Your task to perform on an android device: What's on my calendar today? Image 0: 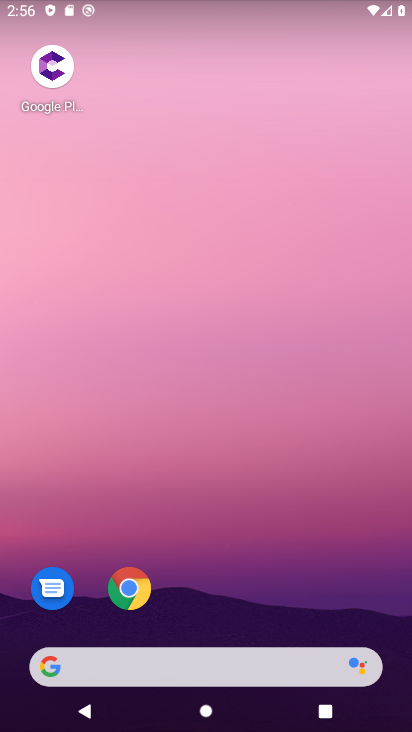
Step 0: drag from (209, 589) to (309, 174)
Your task to perform on an android device: What's on my calendar today? Image 1: 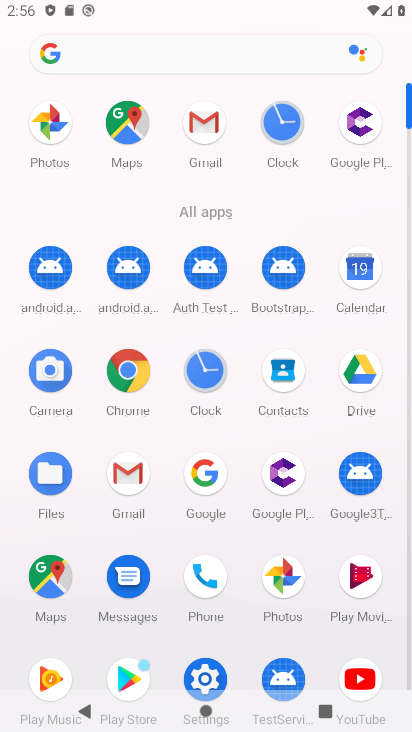
Step 1: click (359, 278)
Your task to perform on an android device: What's on my calendar today? Image 2: 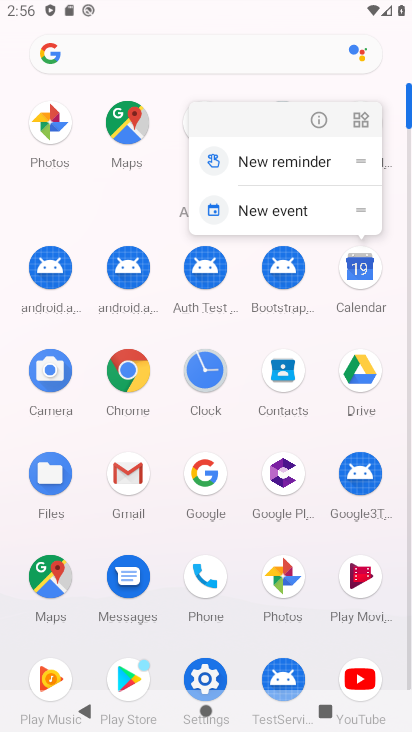
Step 2: click (353, 274)
Your task to perform on an android device: What's on my calendar today? Image 3: 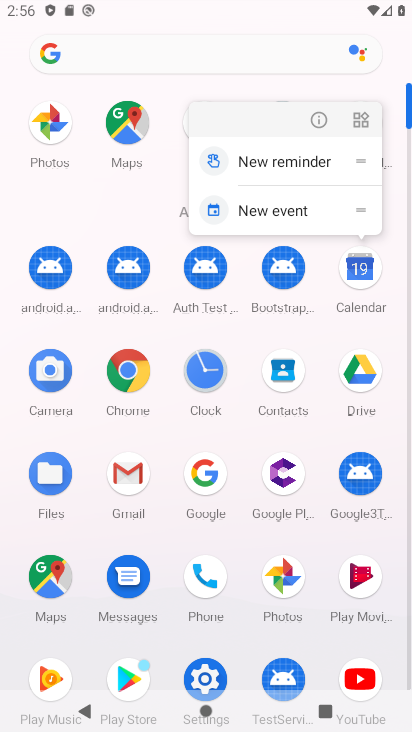
Step 3: click (364, 246)
Your task to perform on an android device: What's on my calendar today? Image 4: 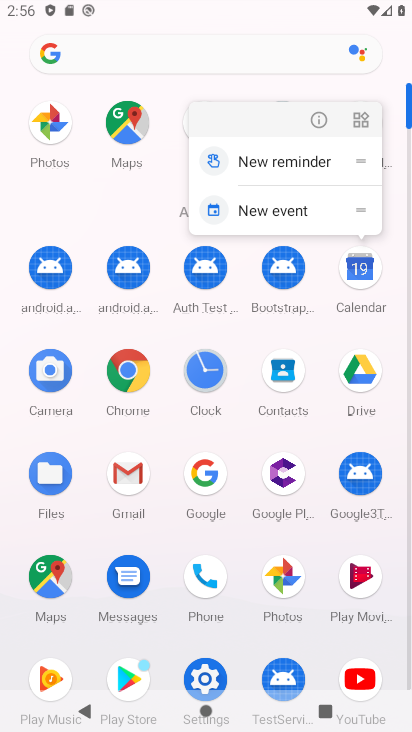
Step 4: click (366, 277)
Your task to perform on an android device: What's on my calendar today? Image 5: 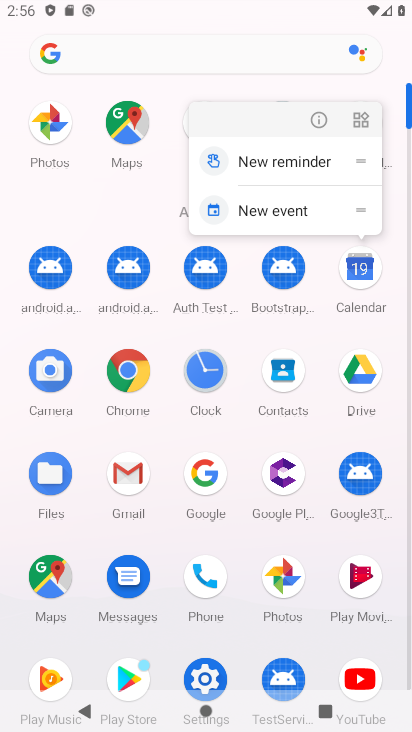
Step 5: click (363, 274)
Your task to perform on an android device: What's on my calendar today? Image 6: 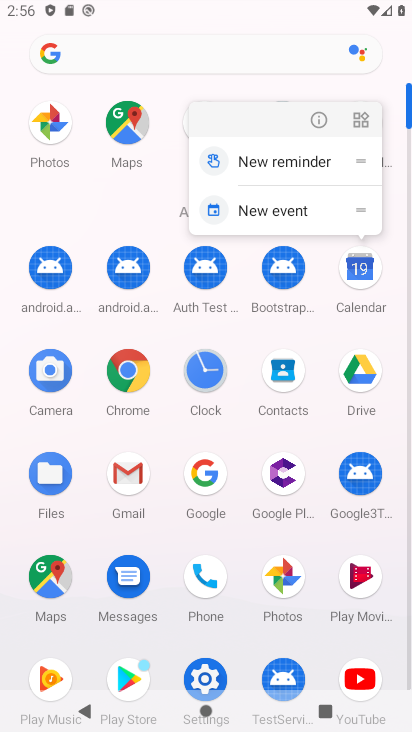
Step 6: click (354, 256)
Your task to perform on an android device: What's on my calendar today? Image 7: 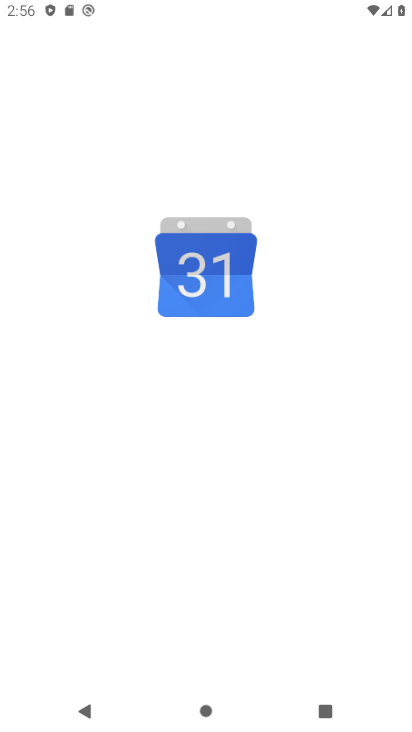
Step 7: click (367, 274)
Your task to perform on an android device: What's on my calendar today? Image 8: 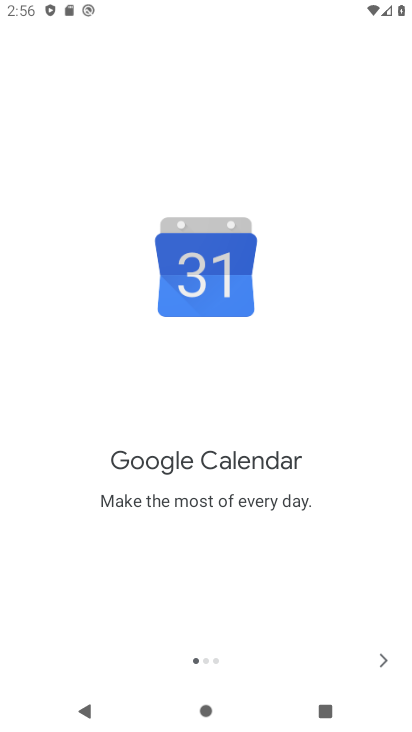
Step 8: click (403, 646)
Your task to perform on an android device: What's on my calendar today? Image 9: 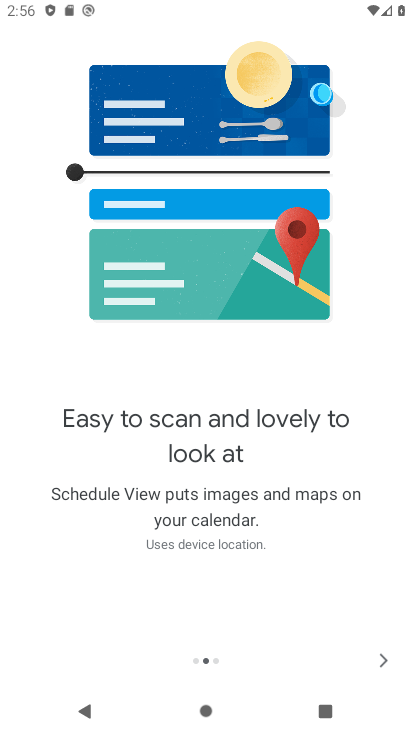
Step 9: click (395, 655)
Your task to perform on an android device: What's on my calendar today? Image 10: 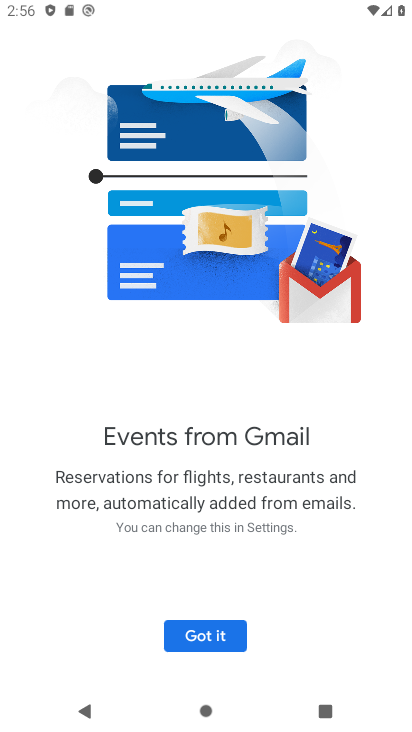
Step 10: click (222, 634)
Your task to perform on an android device: What's on my calendar today? Image 11: 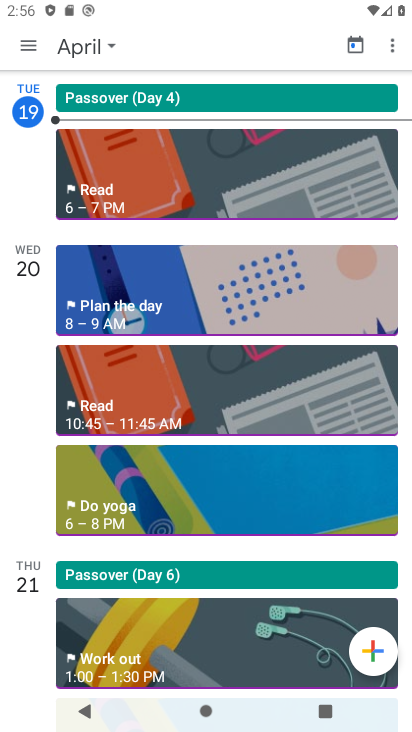
Step 11: task complete